Your task to perform on an android device: turn off smart reply in the gmail app Image 0: 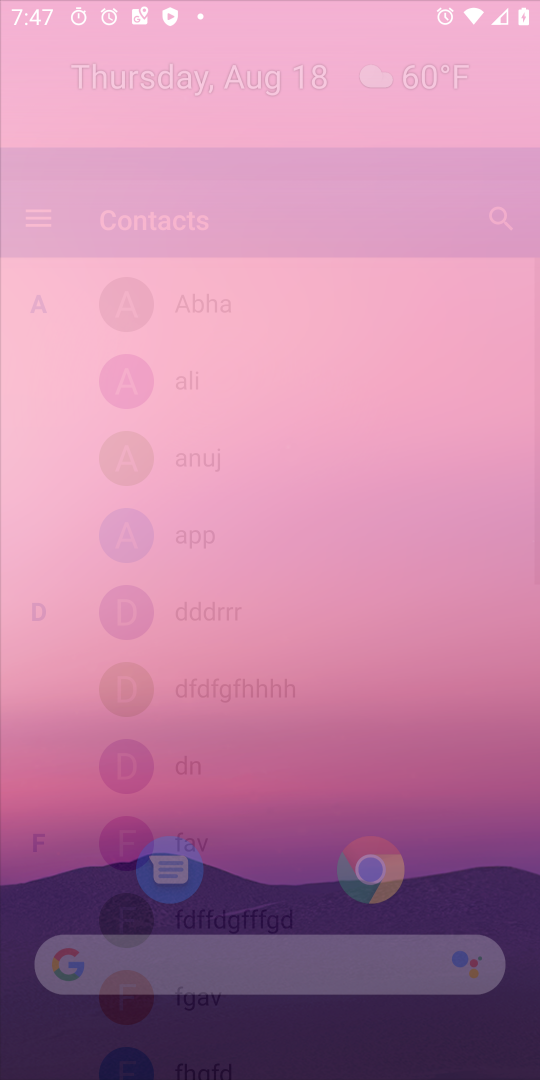
Step 0: press home button
Your task to perform on an android device: turn off smart reply in the gmail app Image 1: 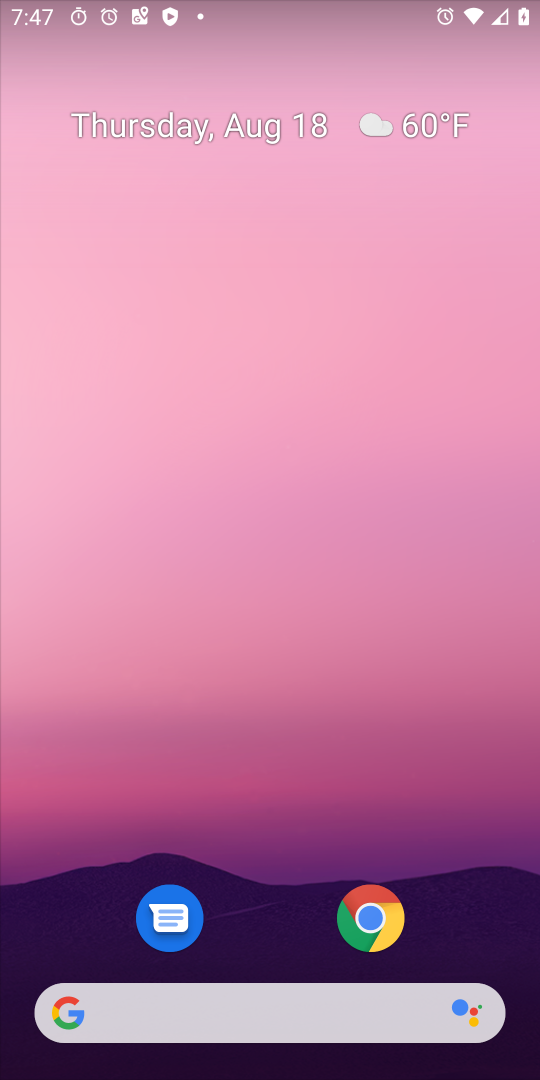
Step 1: drag from (286, 877) to (316, 29)
Your task to perform on an android device: turn off smart reply in the gmail app Image 2: 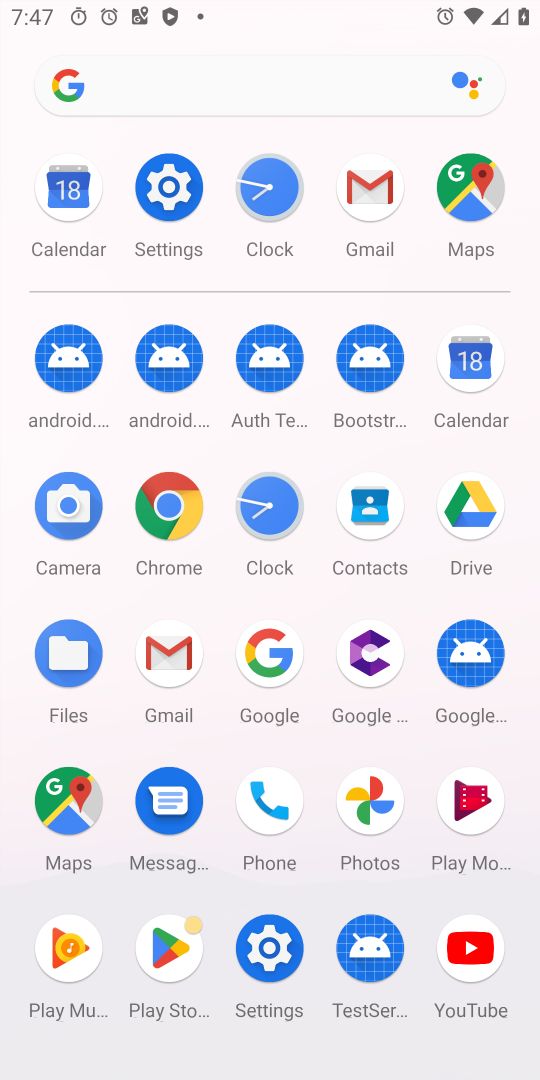
Step 2: click (383, 210)
Your task to perform on an android device: turn off smart reply in the gmail app Image 3: 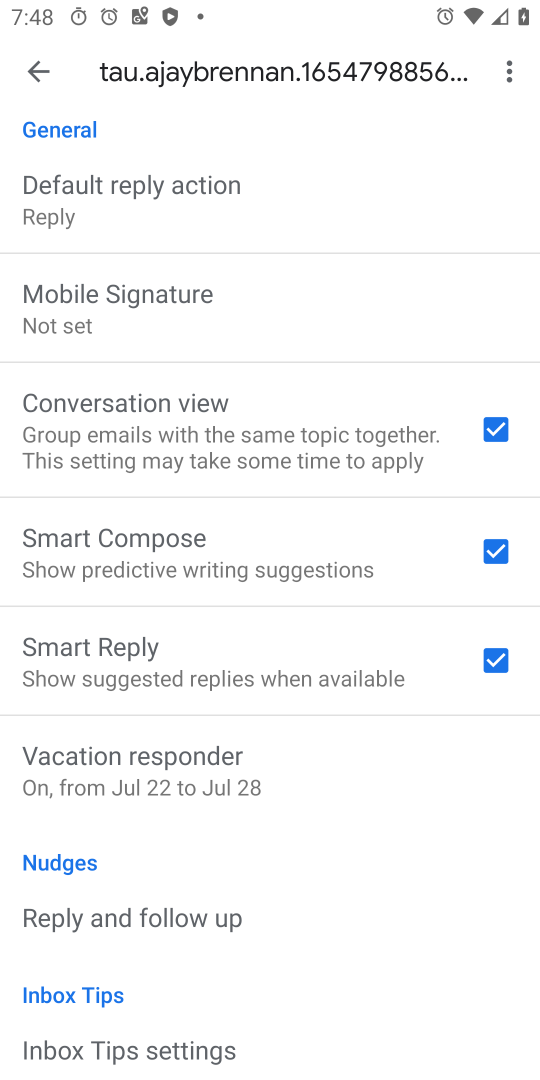
Step 3: click (491, 657)
Your task to perform on an android device: turn off smart reply in the gmail app Image 4: 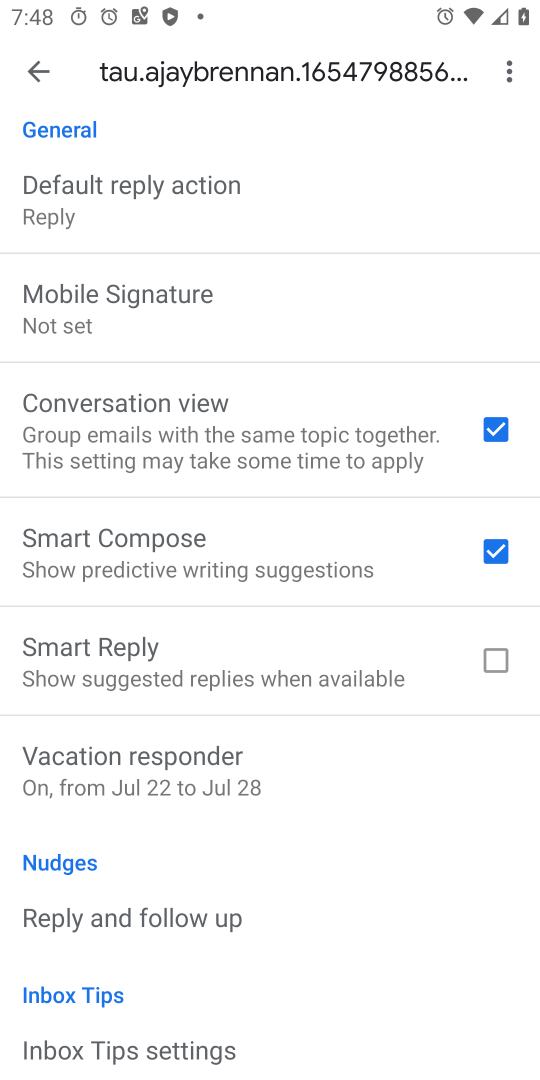
Step 4: task complete